Your task to perform on an android device: Open sound settings Image 0: 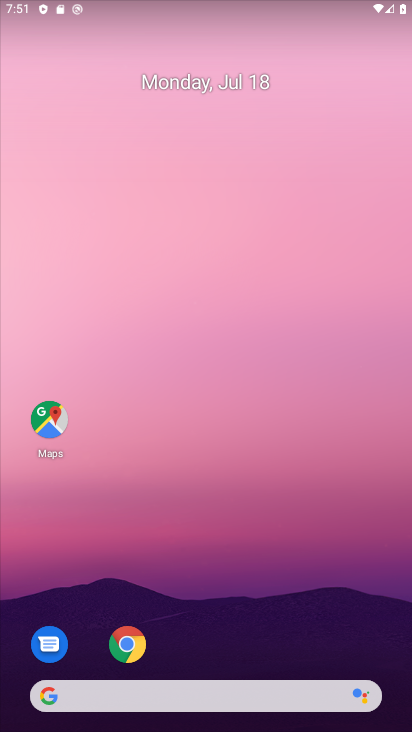
Step 0: press home button
Your task to perform on an android device: Open sound settings Image 1: 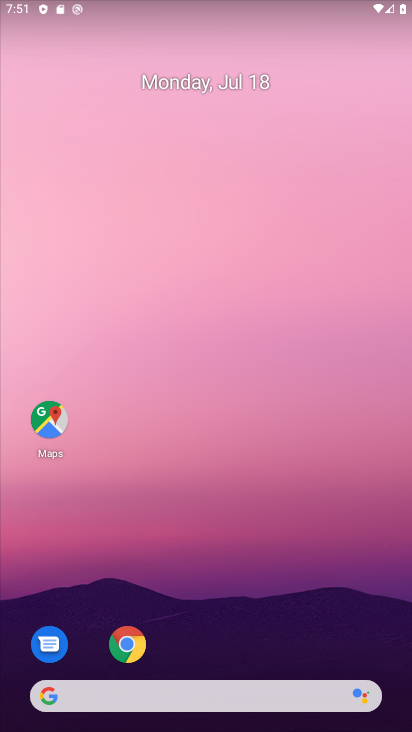
Step 1: drag from (210, 647) to (209, 10)
Your task to perform on an android device: Open sound settings Image 2: 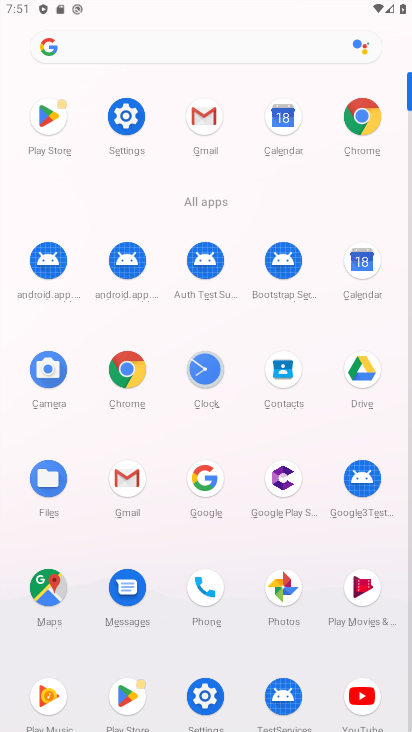
Step 2: click (203, 695)
Your task to perform on an android device: Open sound settings Image 3: 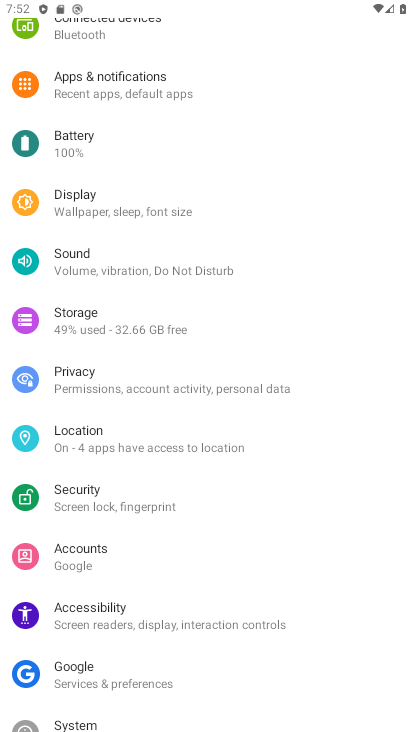
Step 3: click (115, 256)
Your task to perform on an android device: Open sound settings Image 4: 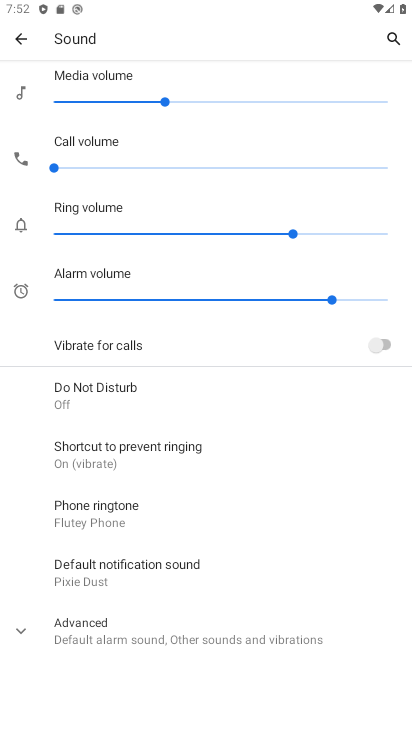
Step 4: click (13, 629)
Your task to perform on an android device: Open sound settings Image 5: 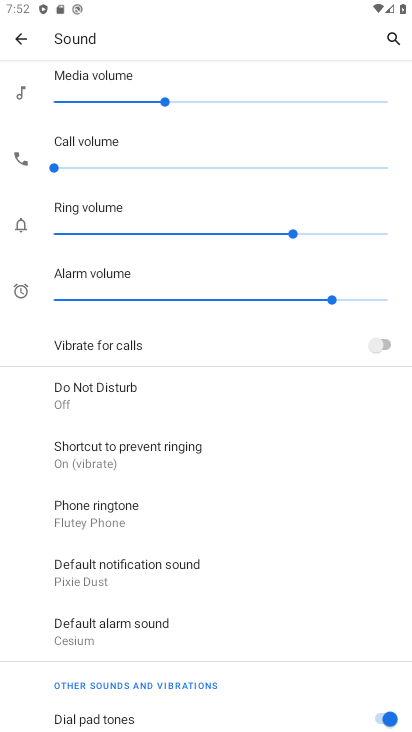
Step 5: task complete